Your task to perform on an android device: Go to Google Image 0: 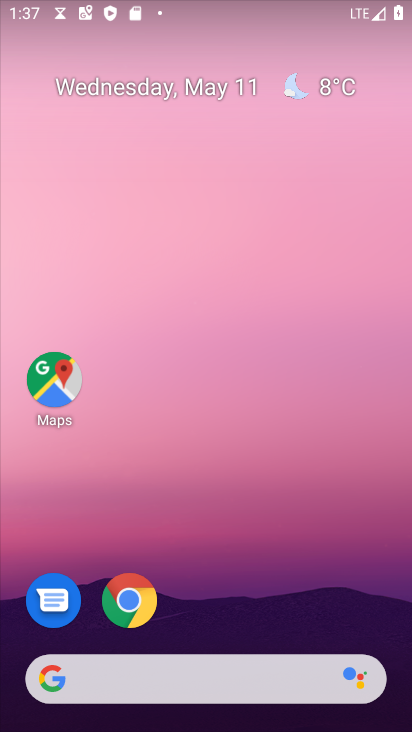
Step 0: drag from (236, 563) to (171, 74)
Your task to perform on an android device: Go to Google Image 1: 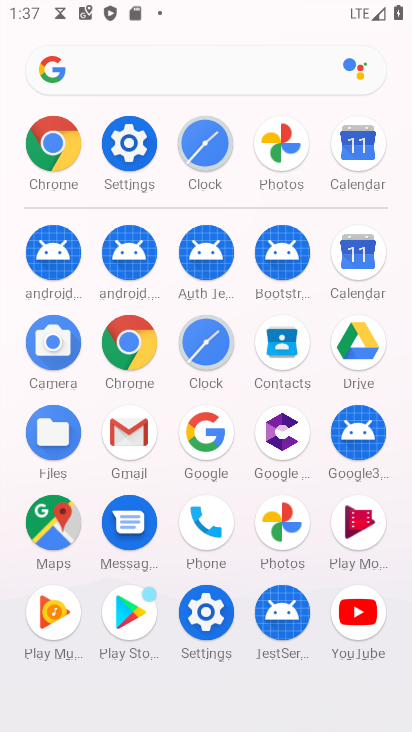
Step 1: click (200, 441)
Your task to perform on an android device: Go to Google Image 2: 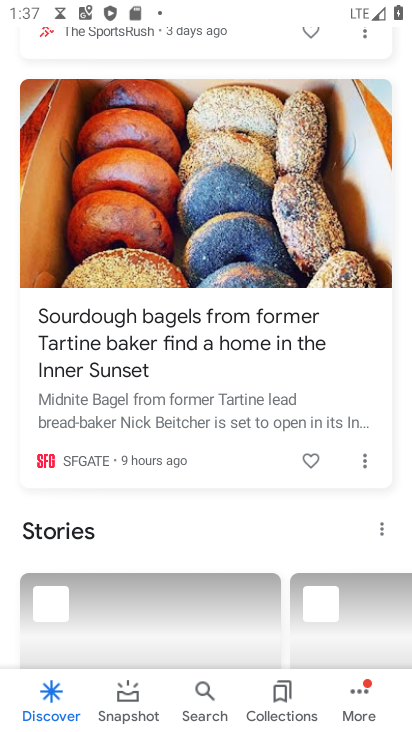
Step 2: task complete